Your task to perform on an android device: turn pop-ups off in chrome Image 0: 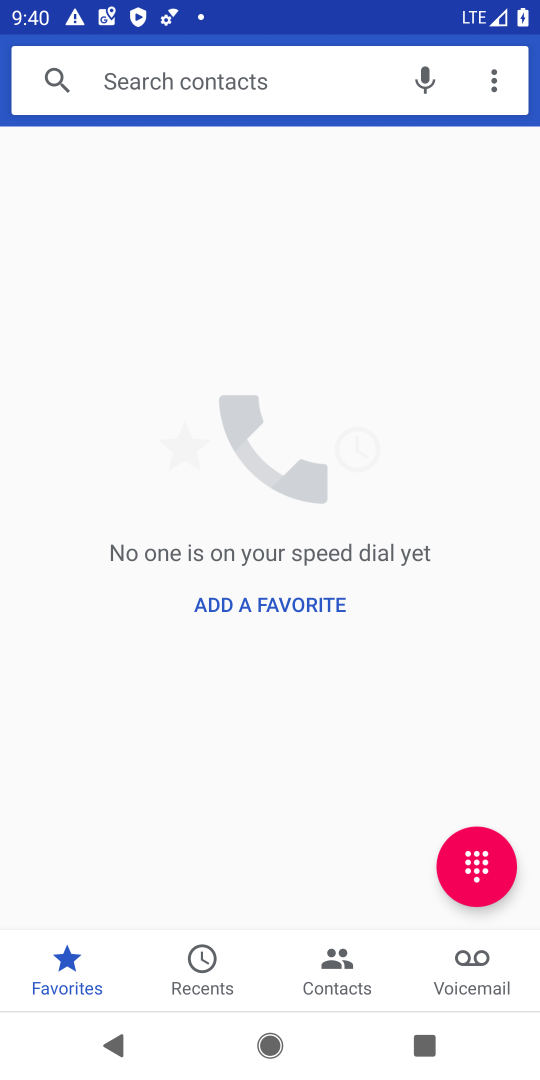
Step 0: press home button
Your task to perform on an android device: turn pop-ups off in chrome Image 1: 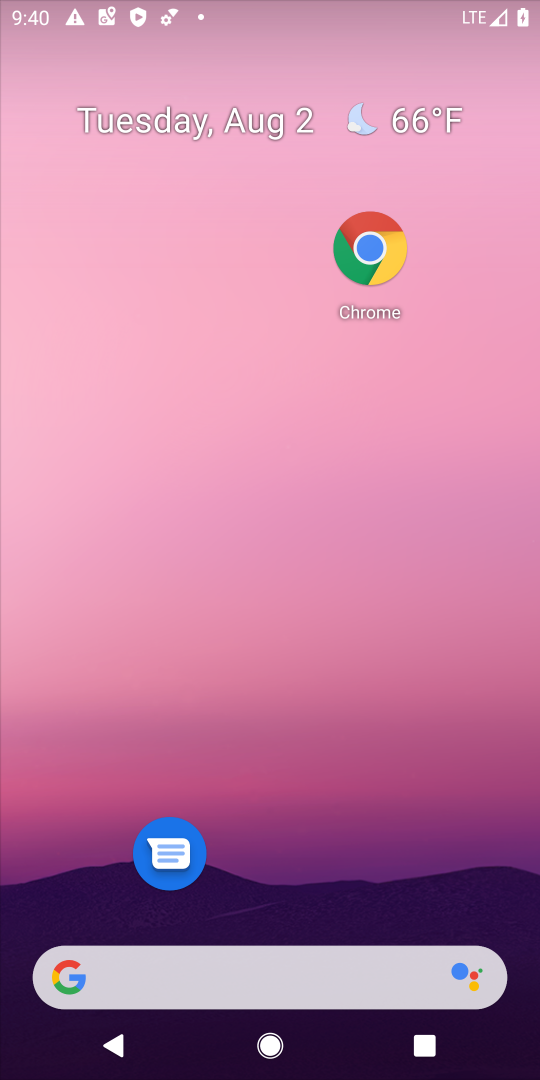
Step 1: drag from (288, 913) to (234, 17)
Your task to perform on an android device: turn pop-ups off in chrome Image 2: 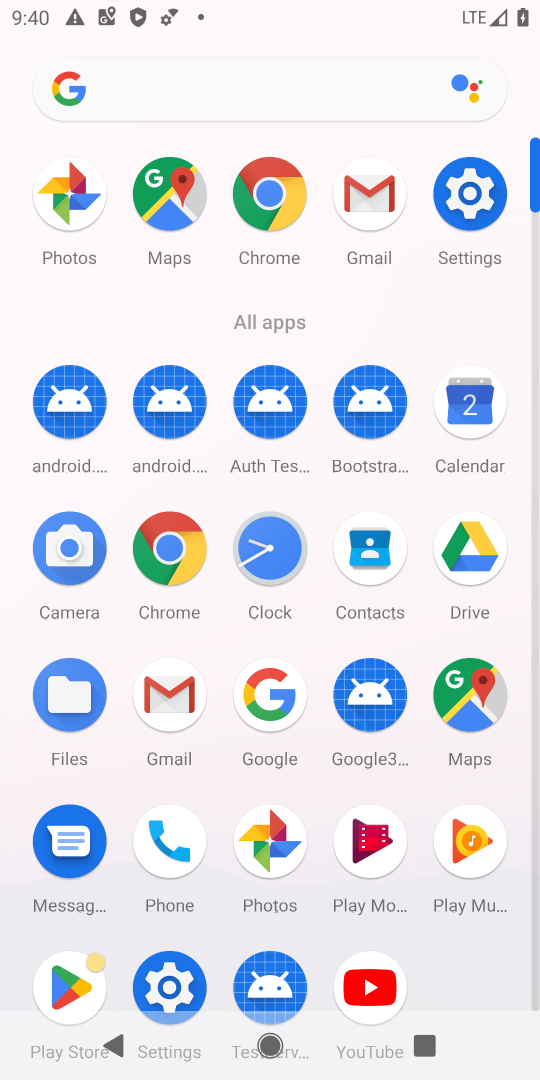
Step 2: click (247, 216)
Your task to perform on an android device: turn pop-ups off in chrome Image 3: 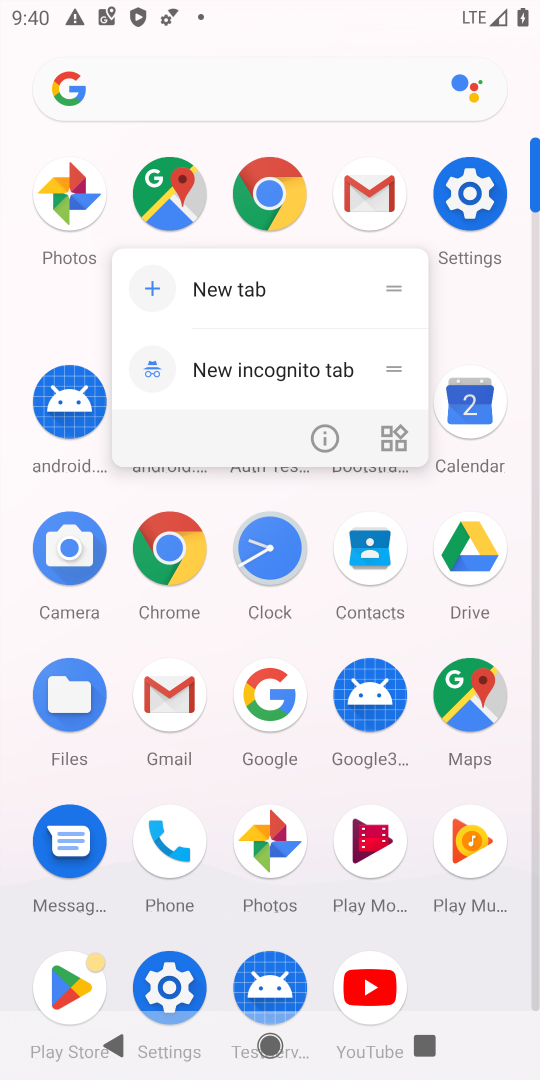
Step 3: click (261, 200)
Your task to perform on an android device: turn pop-ups off in chrome Image 4: 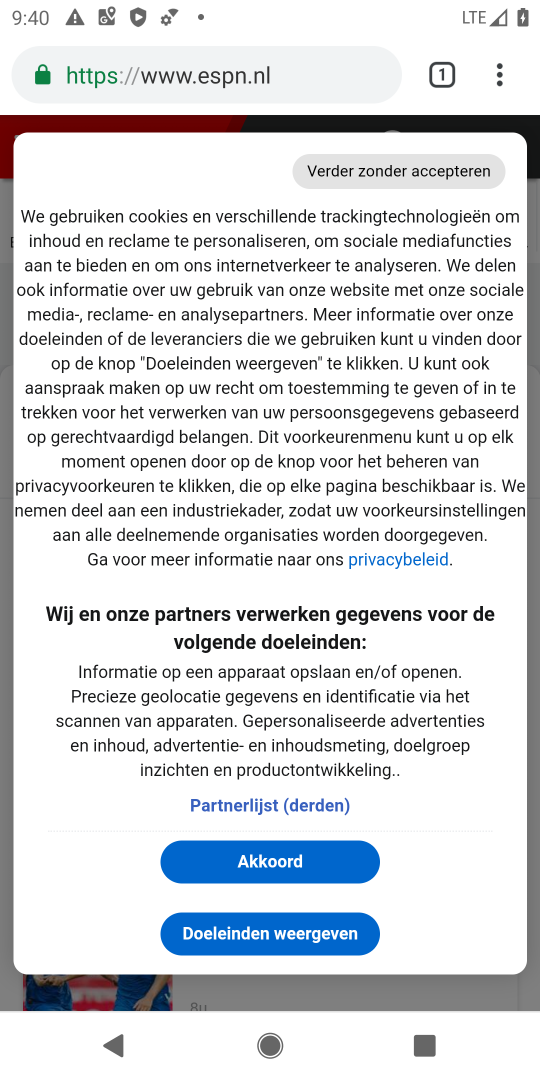
Step 4: click (323, 844)
Your task to perform on an android device: turn pop-ups off in chrome Image 5: 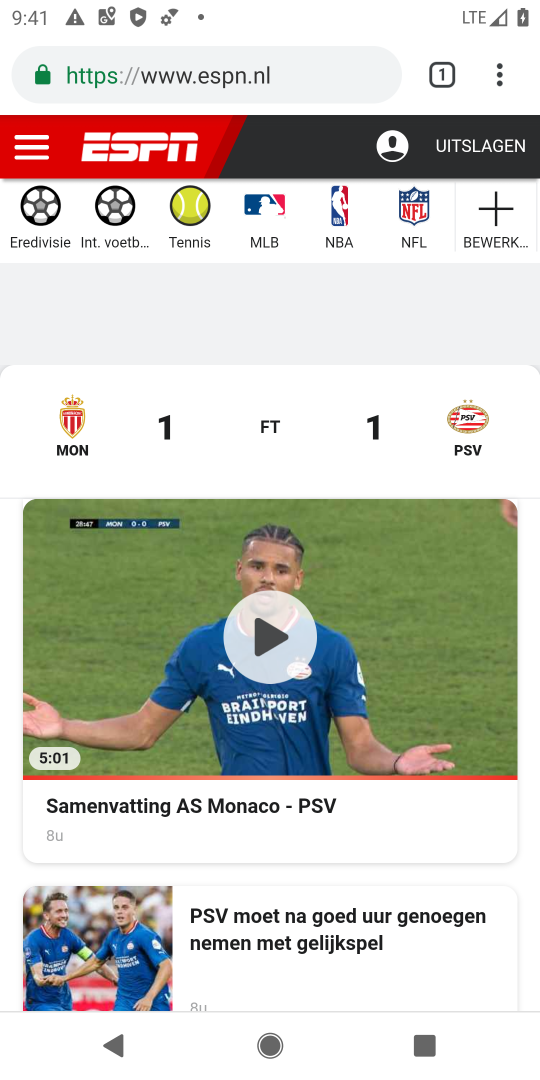
Step 5: click (496, 79)
Your task to perform on an android device: turn pop-ups off in chrome Image 6: 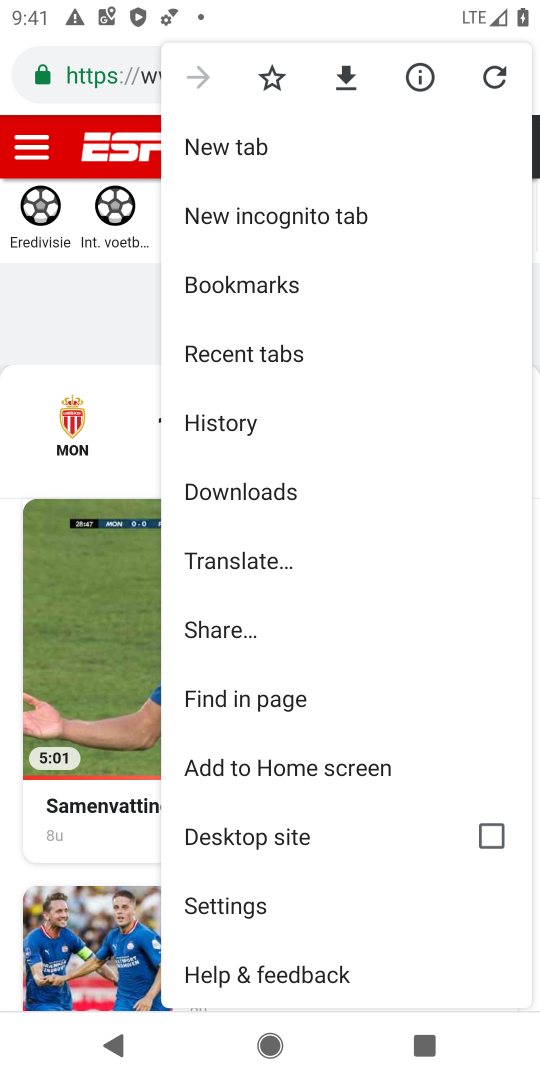
Step 6: click (190, 923)
Your task to perform on an android device: turn pop-ups off in chrome Image 7: 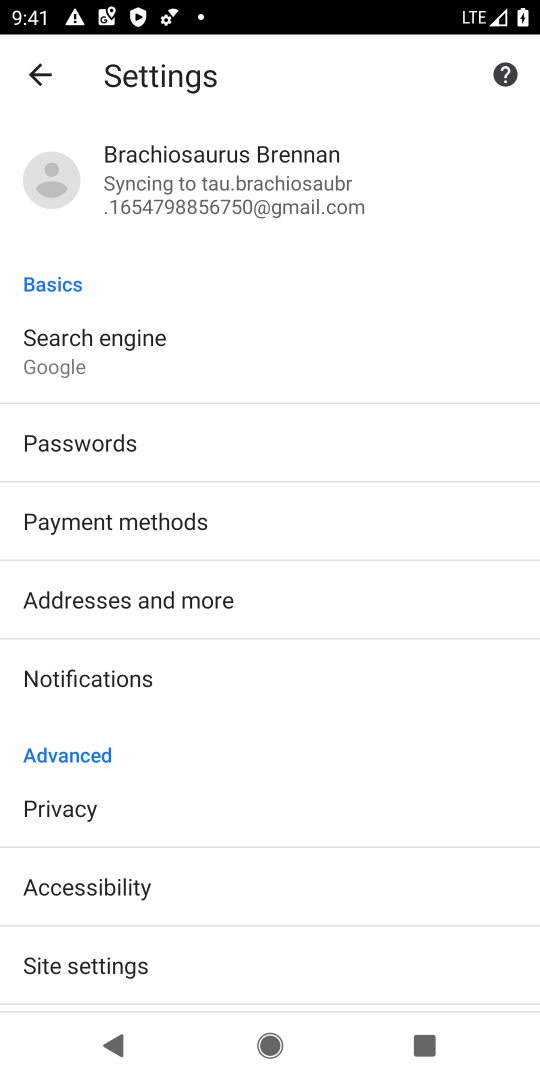
Step 7: drag from (181, 908) to (127, 276)
Your task to perform on an android device: turn pop-ups off in chrome Image 8: 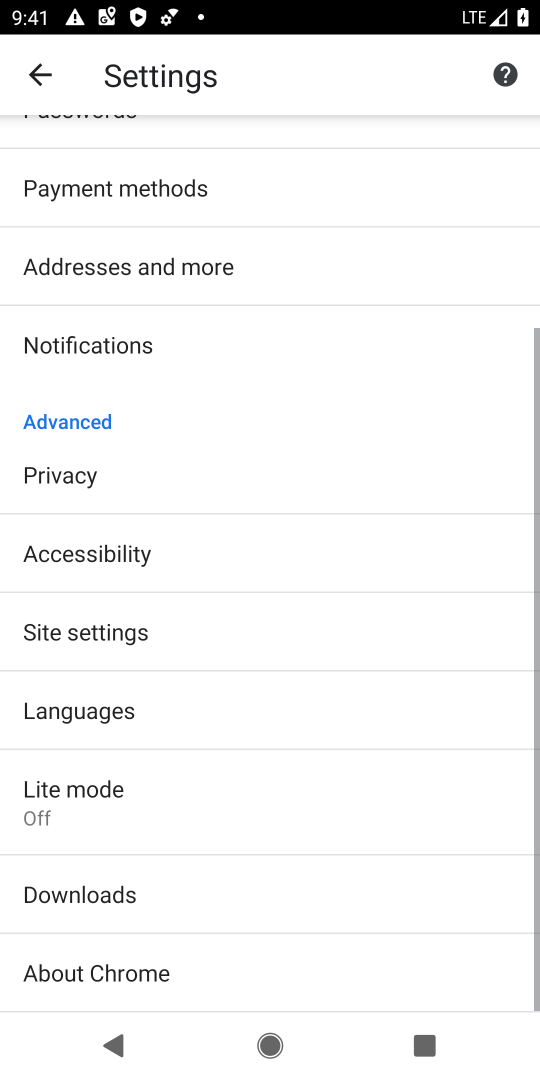
Step 8: click (113, 634)
Your task to perform on an android device: turn pop-ups off in chrome Image 9: 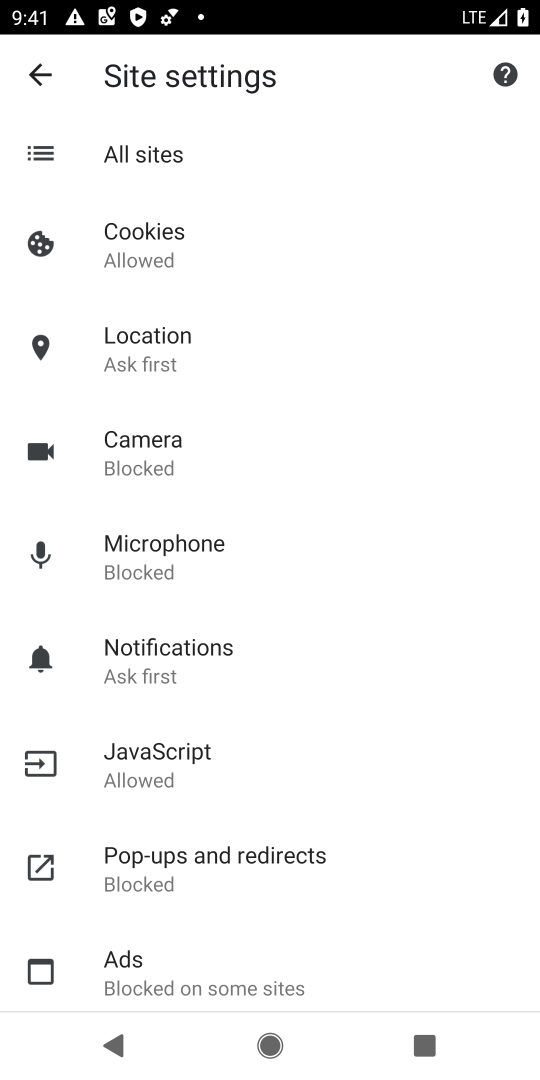
Step 9: click (205, 889)
Your task to perform on an android device: turn pop-ups off in chrome Image 10: 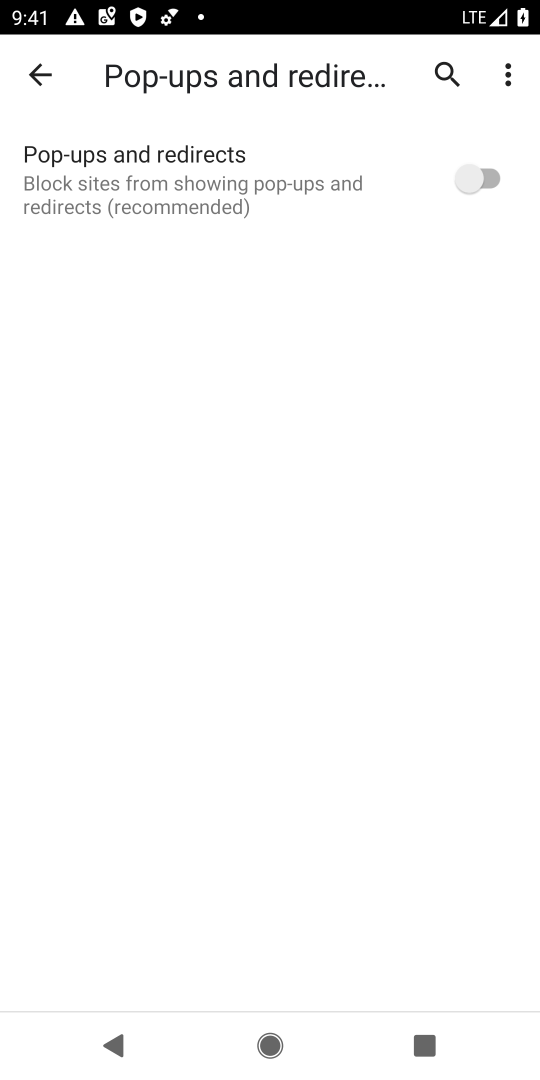
Step 10: task complete